Your task to perform on an android device: toggle notifications settings in the gmail app Image 0: 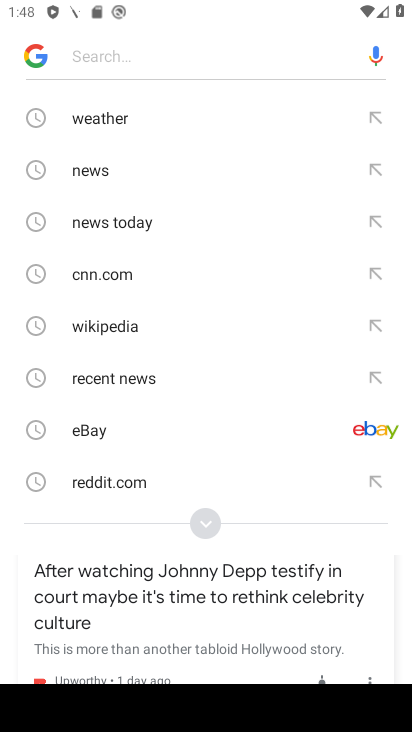
Step 0: press home button
Your task to perform on an android device: toggle notifications settings in the gmail app Image 1: 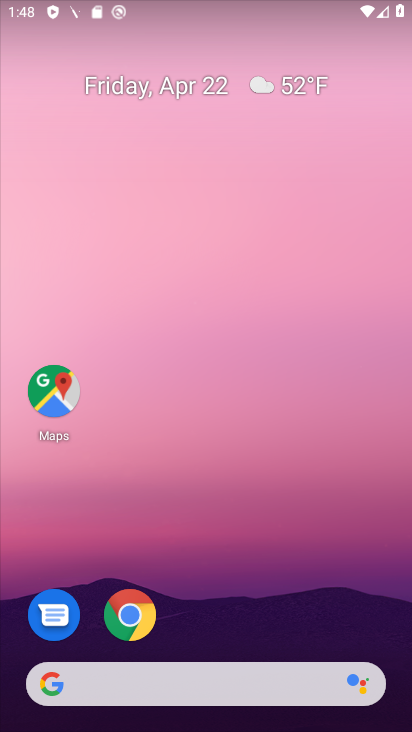
Step 1: drag from (214, 724) to (51, 84)
Your task to perform on an android device: toggle notifications settings in the gmail app Image 2: 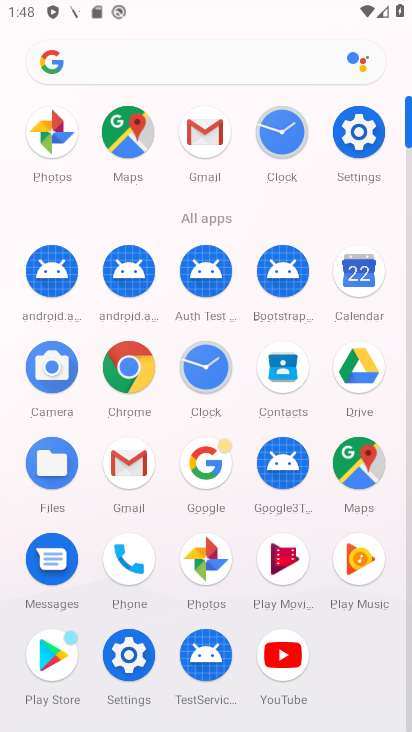
Step 2: click (210, 140)
Your task to perform on an android device: toggle notifications settings in the gmail app Image 3: 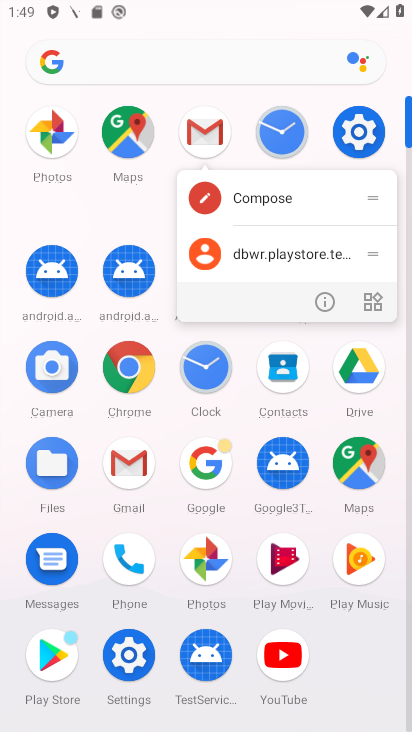
Step 3: click (330, 299)
Your task to perform on an android device: toggle notifications settings in the gmail app Image 4: 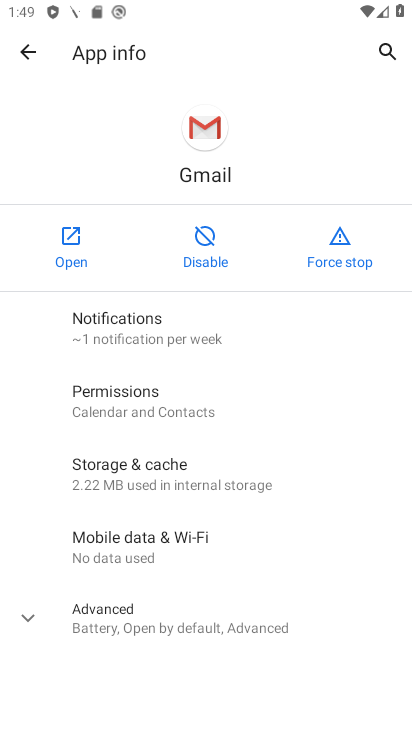
Step 4: click (129, 314)
Your task to perform on an android device: toggle notifications settings in the gmail app Image 5: 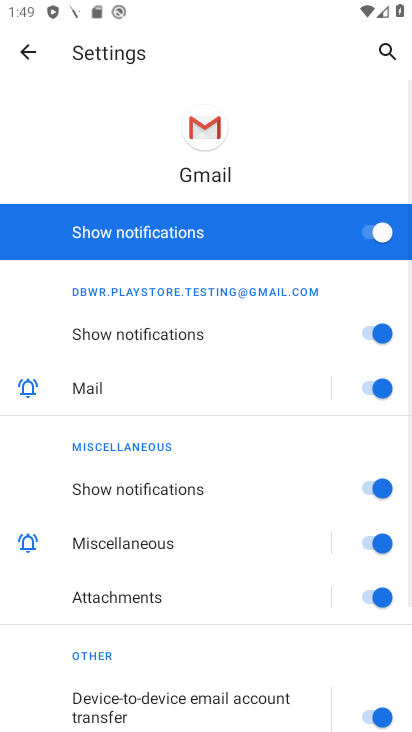
Step 5: click (377, 234)
Your task to perform on an android device: toggle notifications settings in the gmail app Image 6: 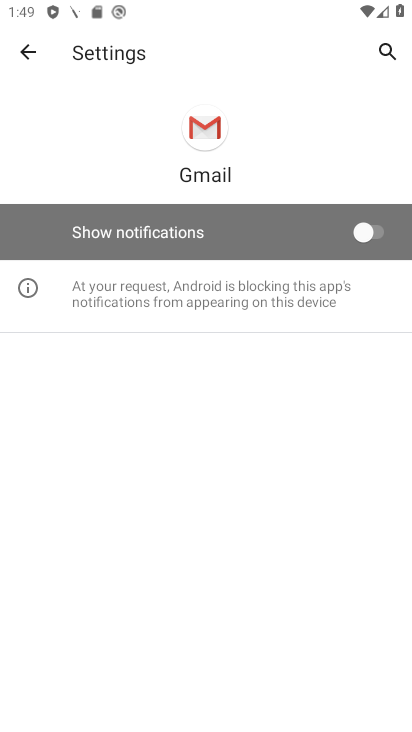
Step 6: task complete